Your task to perform on an android device: Open Google Chrome Image 0: 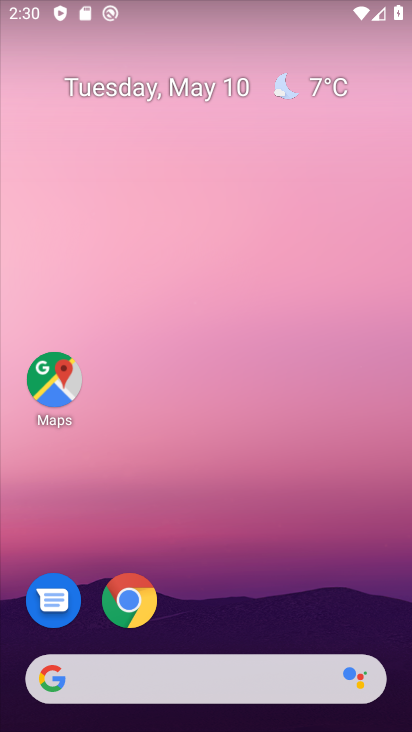
Step 0: drag from (158, 681) to (191, 120)
Your task to perform on an android device: Open Google Chrome Image 1: 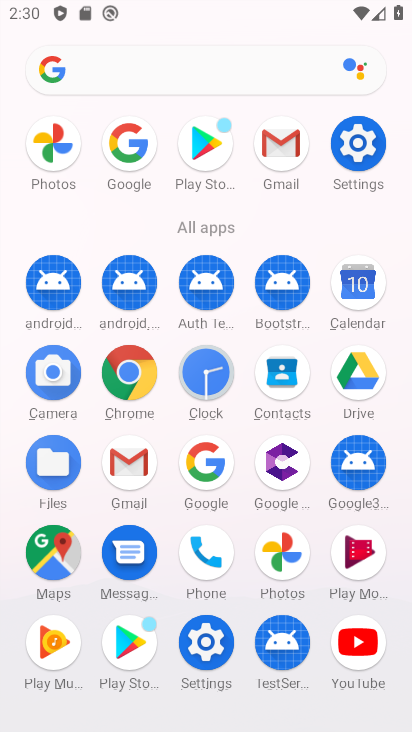
Step 1: click (118, 369)
Your task to perform on an android device: Open Google Chrome Image 2: 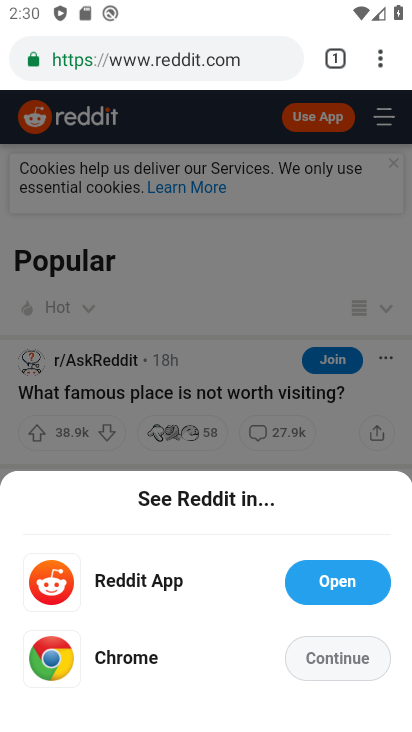
Step 2: click (332, 661)
Your task to perform on an android device: Open Google Chrome Image 3: 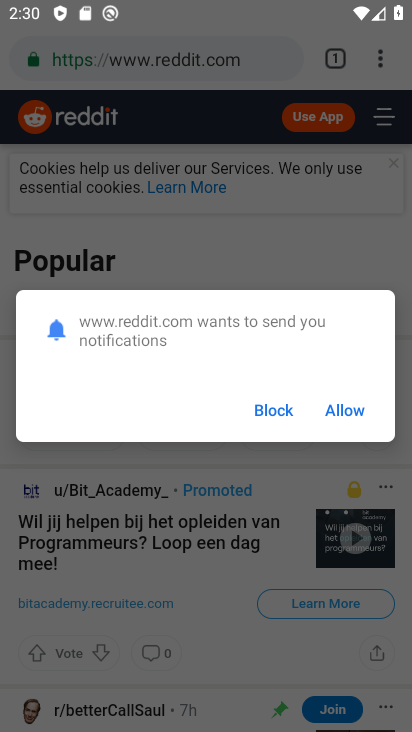
Step 3: task complete